Your task to perform on an android device: turn on the 24-hour format for clock Image 0: 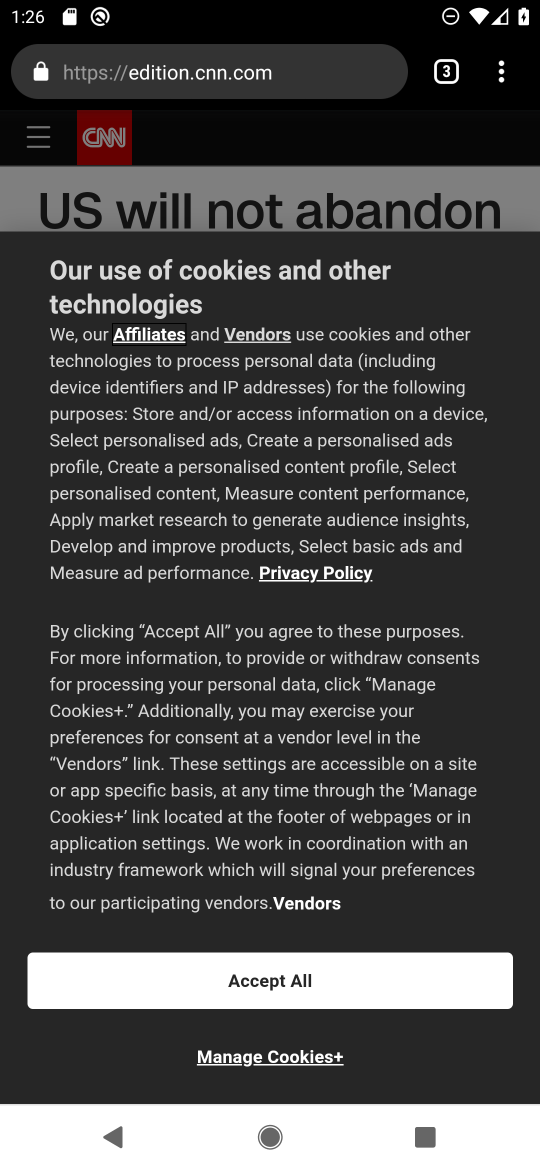
Step 0: press back button
Your task to perform on an android device: turn on the 24-hour format for clock Image 1: 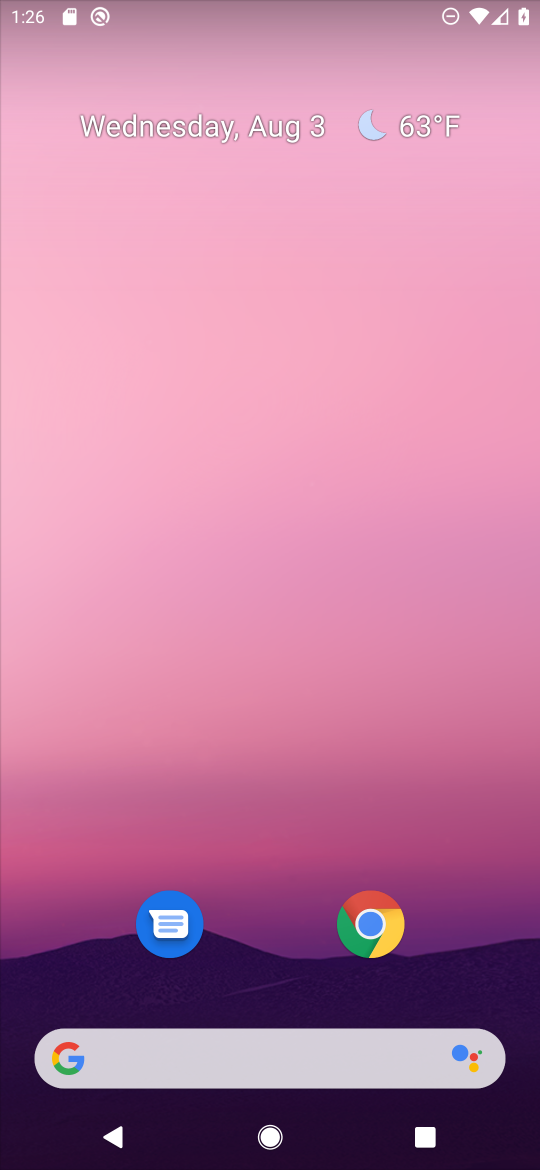
Step 1: drag from (261, 927) to (362, 20)
Your task to perform on an android device: turn on the 24-hour format for clock Image 2: 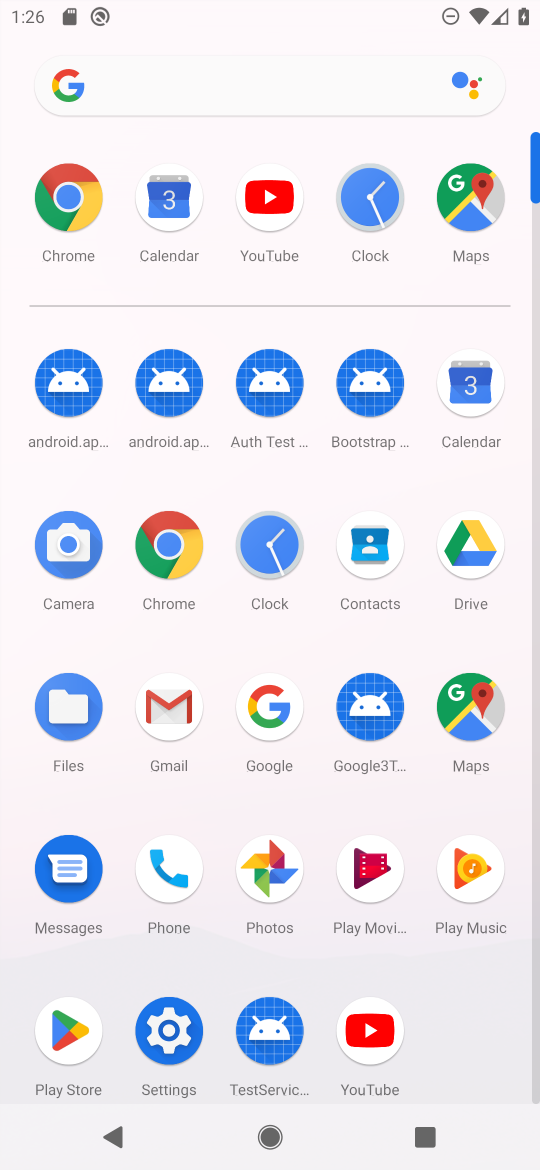
Step 2: click (257, 535)
Your task to perform on an android device: turn on the 24-hour format for clock Image 3: 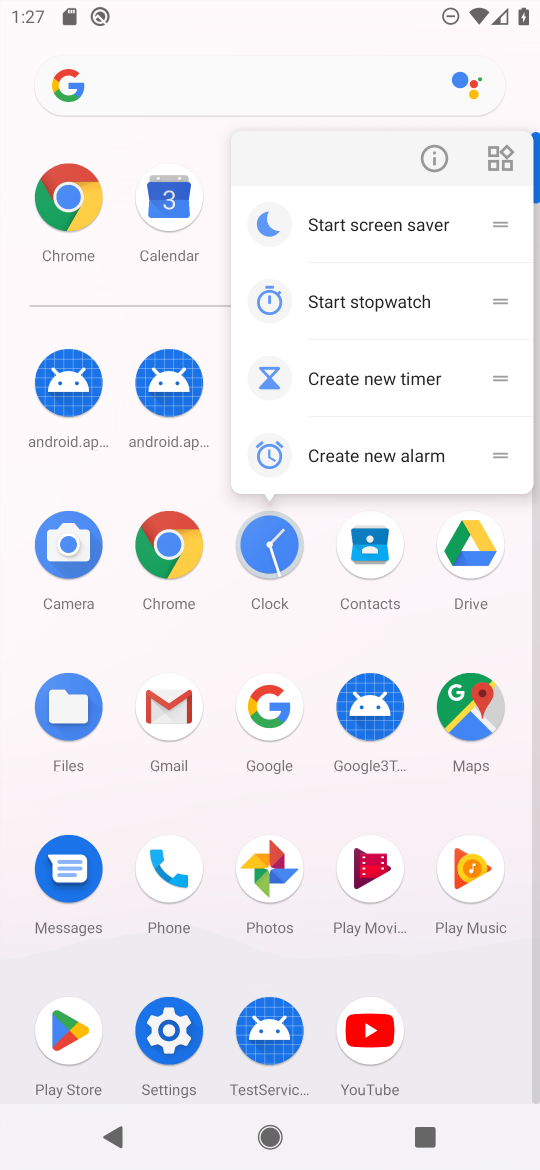
Step 3: click (276, 536)
Your task to perform on an android device: turn on the 24-hour format for clock Image 4: 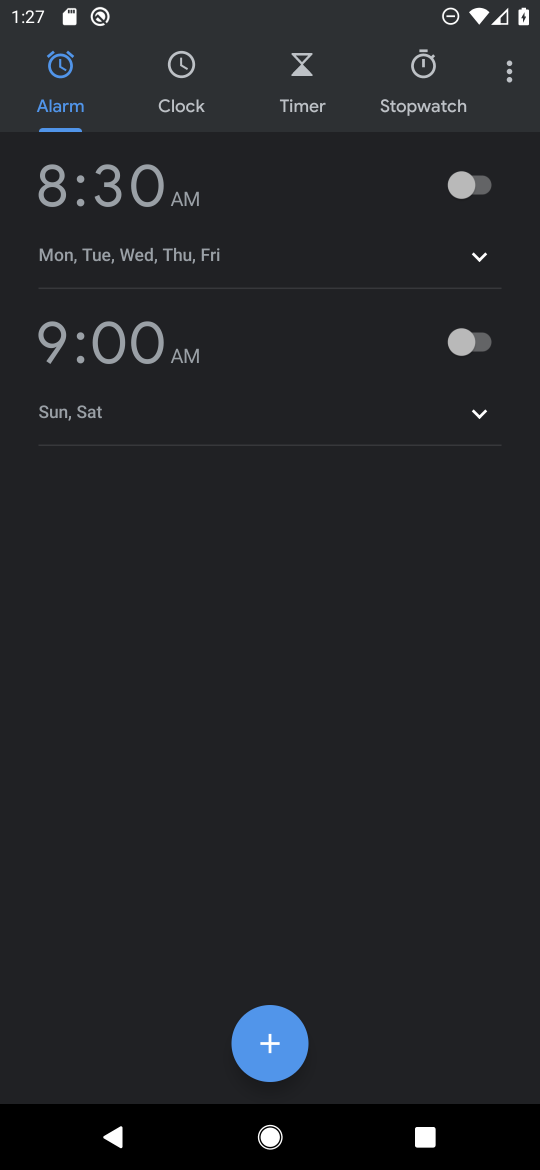
Step 4: click (510, 62)
Your task to perform on an android device: turn on the 24-hour format for clock Image 5: 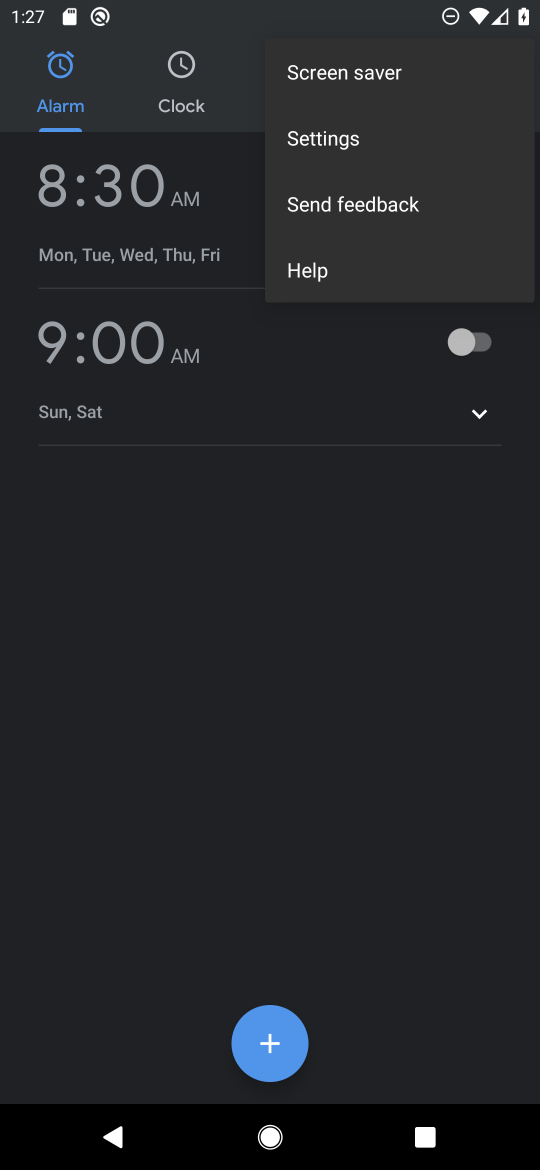
Step 5: click (334, 145)
Your task to perform on an android device: turn on the 24-hour format for clock Image 6: 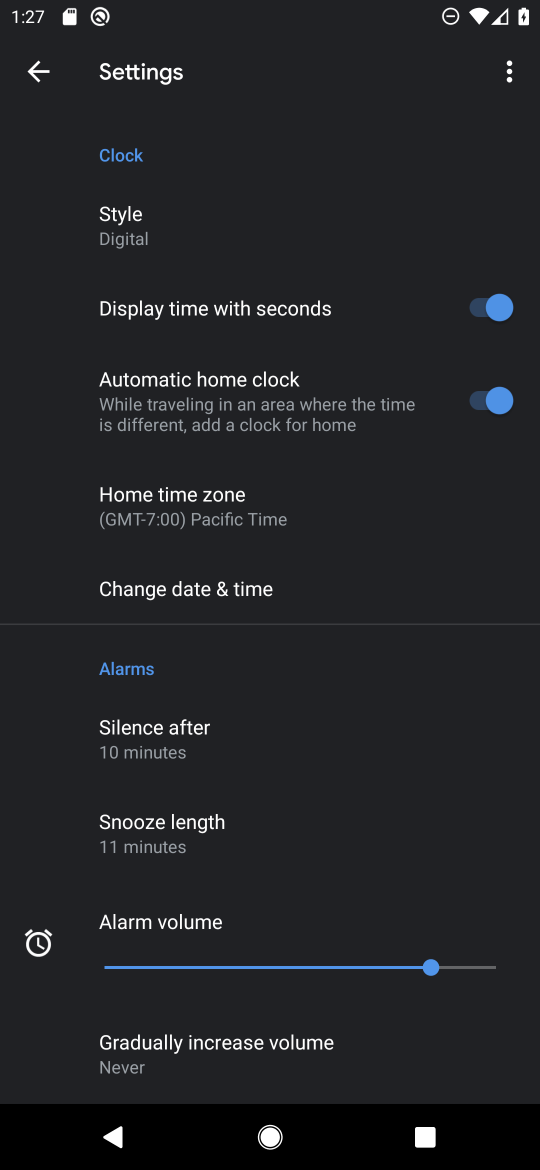
Step 6: drag from (220, 881) to (331, 289)
Your task to perform on an android device: turn on the 24-hour format for clock Image 7: 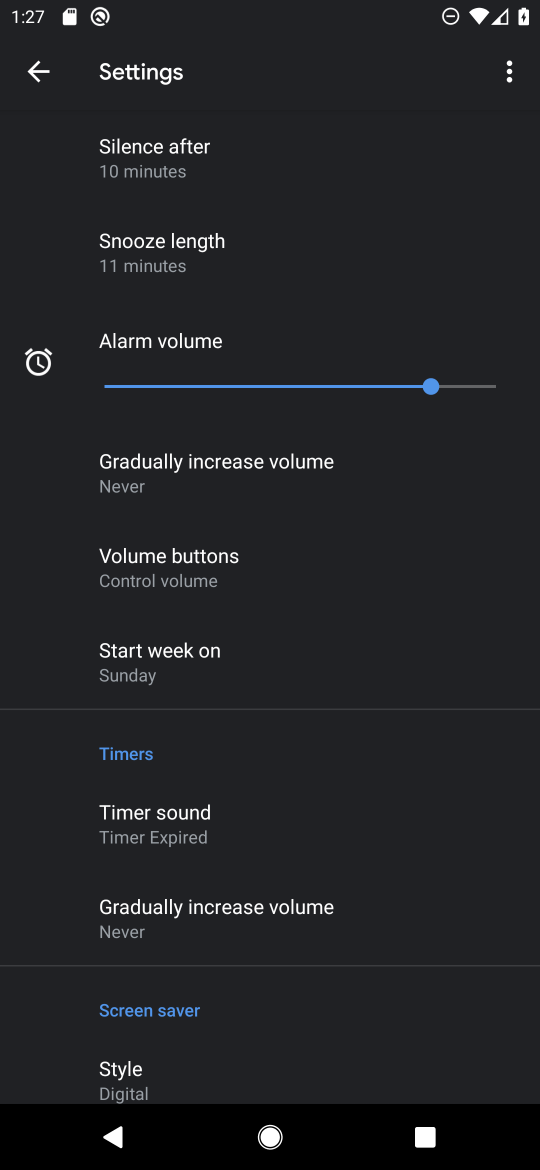
Step 7: drag from (281, 426) to (285, 1031)
Your task to perform on an android device: turn on the 24-hour format for clock Image 8: 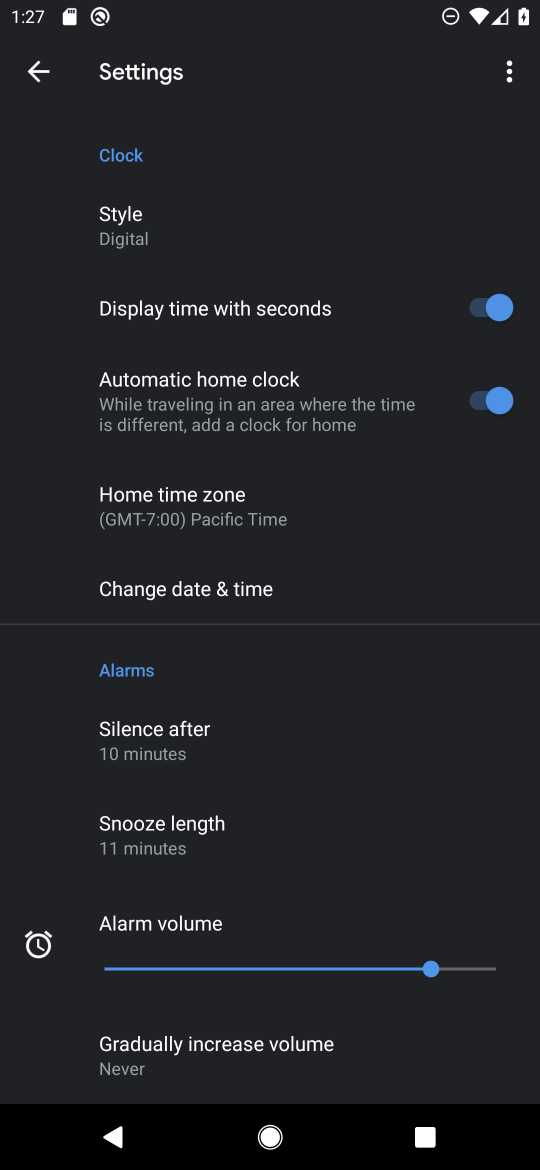
Step 8: click (176, 598)
Your task to perform on an android device: turn on the 24-hour format for clock Image 9: 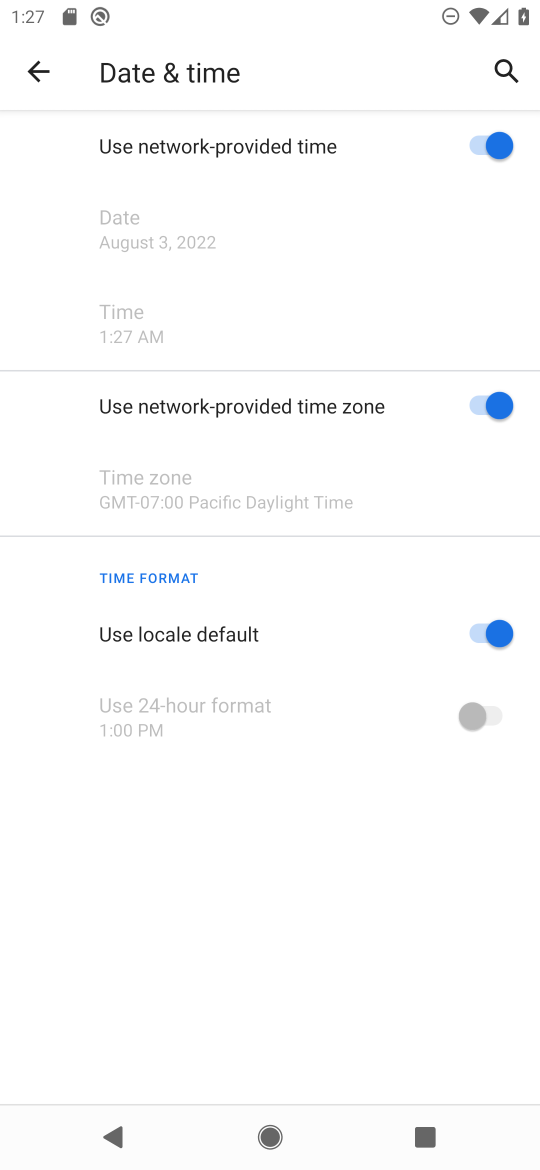
Step 9: click (498, 638)
Your task to perform on an android device: turn on the 24-hour format for clock Image 10: 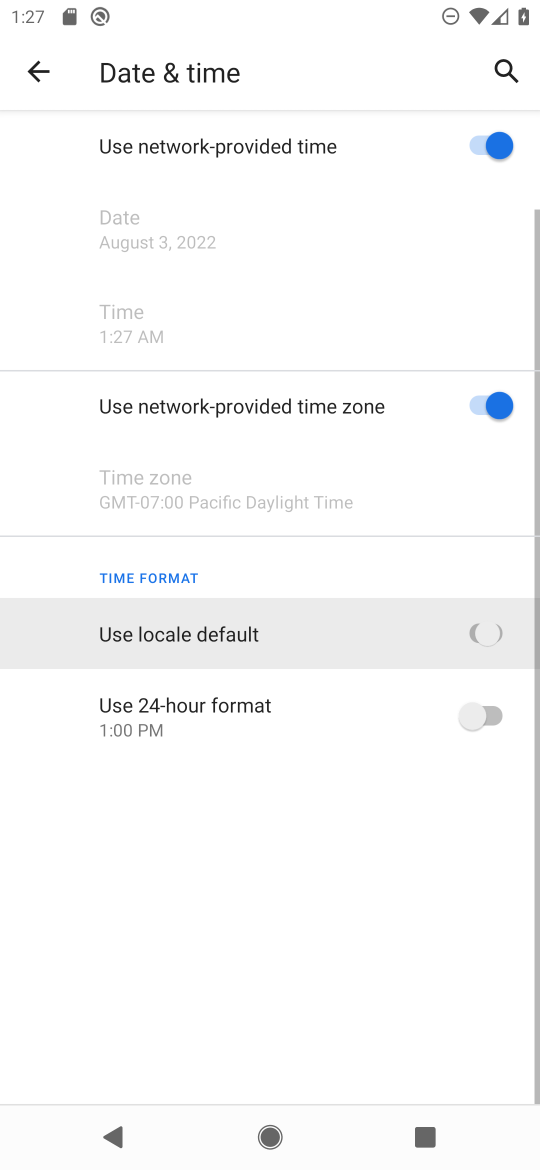
Step 10: click (464, 719)
Your task to perform on an android device: turn on the 24-hour format for clock Image 11: 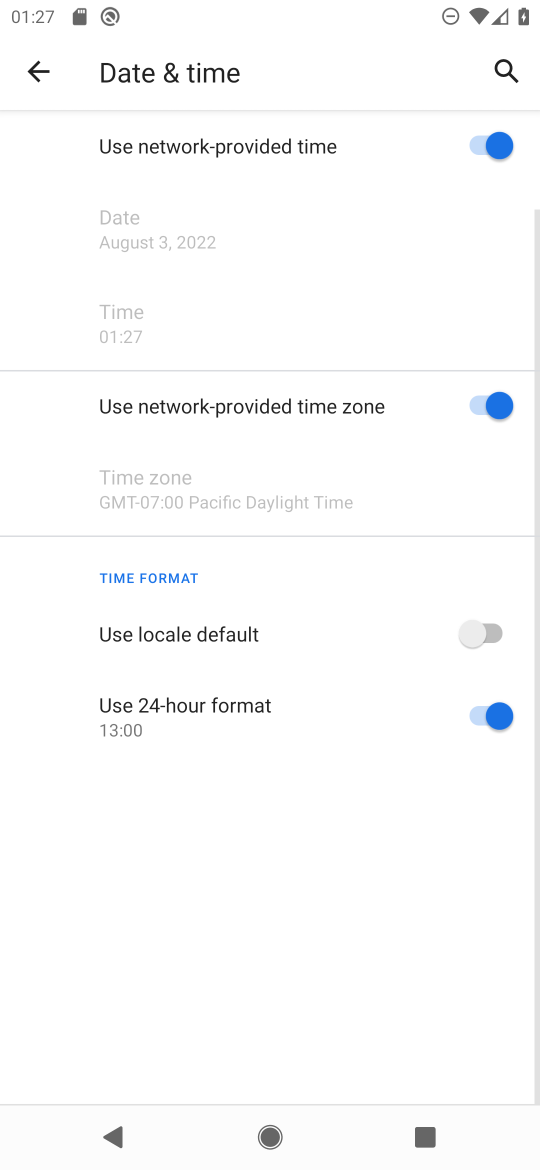
Step 11: task complete